Your task to perform on an android device: turn on the 12-hour format for clock Image 0: 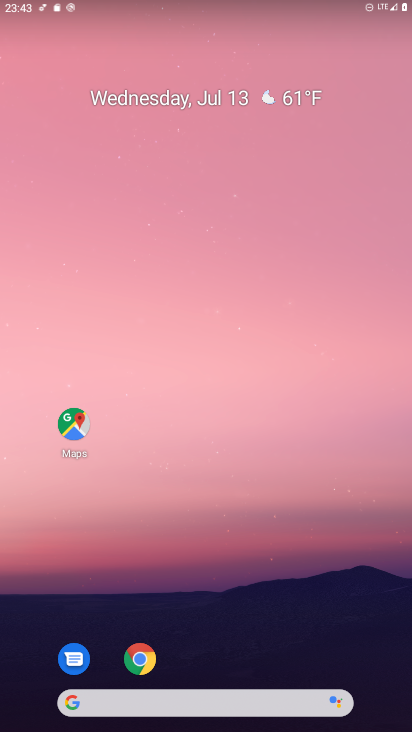
Step 0: drag from (348, 653) to (288, 78)
Your task to perform on an android device: turn on the 12-hour format for clock Image 1: 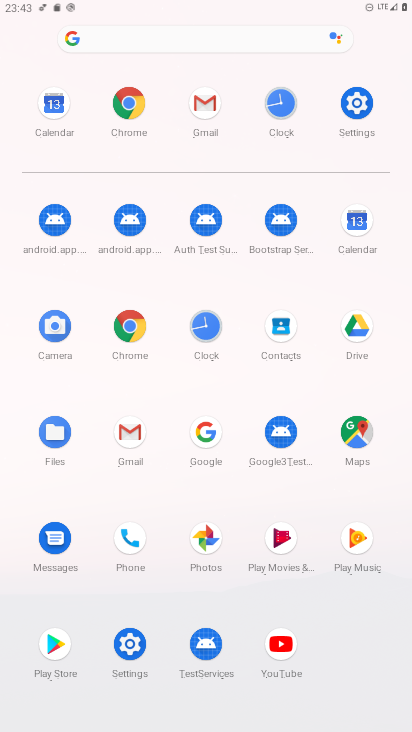
Step 1: click (205, 327)
Your task to perform on an android device: turn on the 12-hour format for clock Image 2: 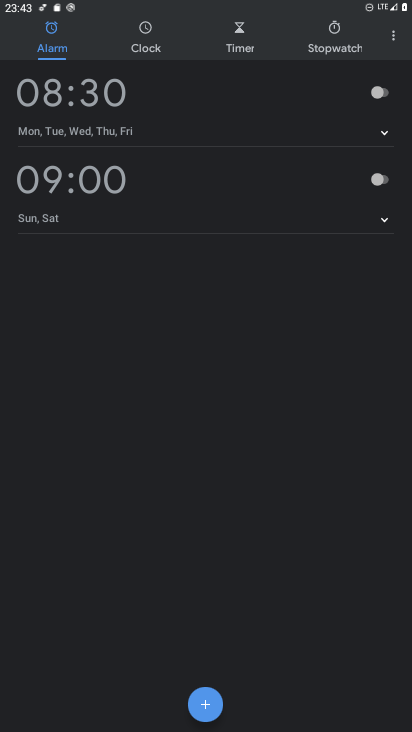
Step 2: click (393, 41)
Your task to perform on an android device: turn on the 12-hour format for clock Image 3: 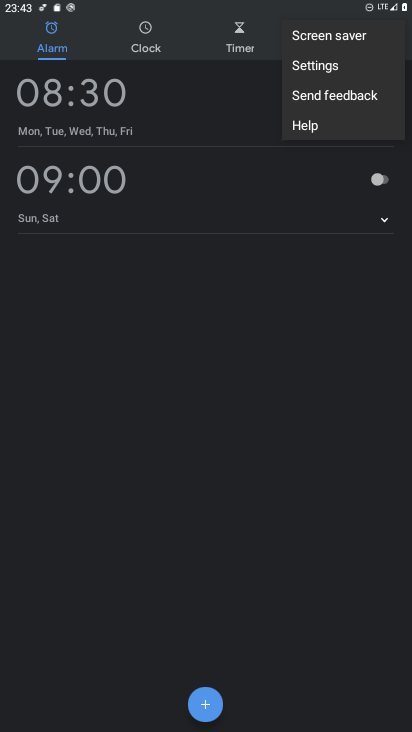
Step 3: click (315, 66)
Your task to perform on an android device: turn on the 12-hour format for clock Image 4: 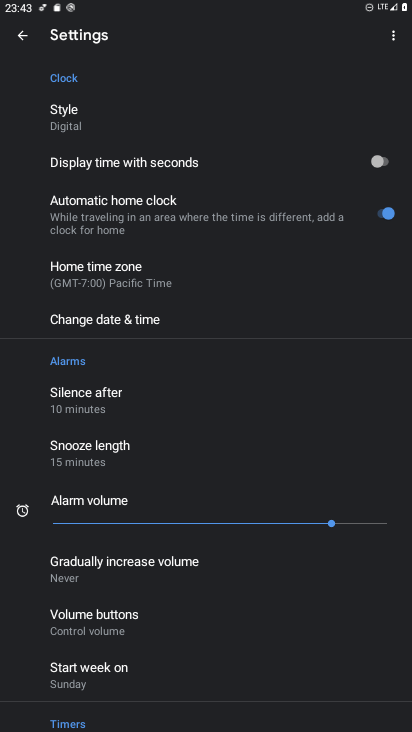
Step 4: click (119, 326)
Your task to perform on an android device: turn on the 12-hour format for clock Image 5: 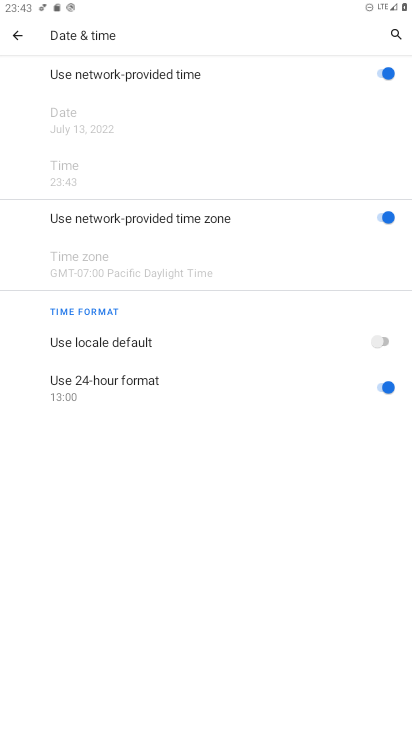
Step 5: click (379, 341)
Your task to perform on an android device: turn on the 12-hour format for clock Image 6: 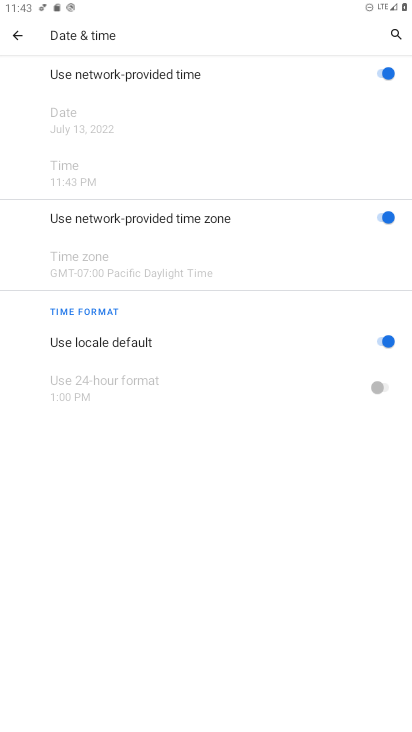
Step 6: click (379, 393)
Your task to perform on an android device: turn on the 12-hour format for clock Image 7: 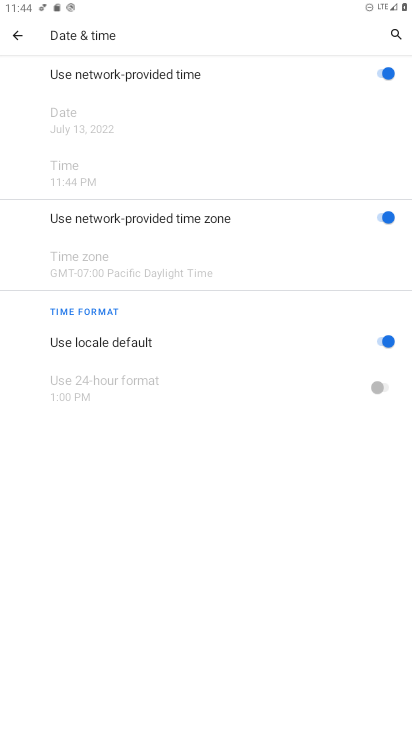
Step 7: task complete